Your task to perform on an android device: What's on my calendar tomorrow? Image 0: 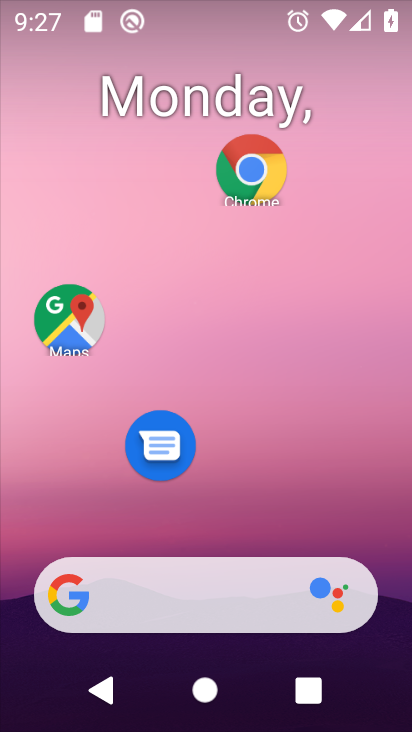
Step 0: press home button
Your task to perform on an android device: What's on my calendar tomorrow? Image 1: 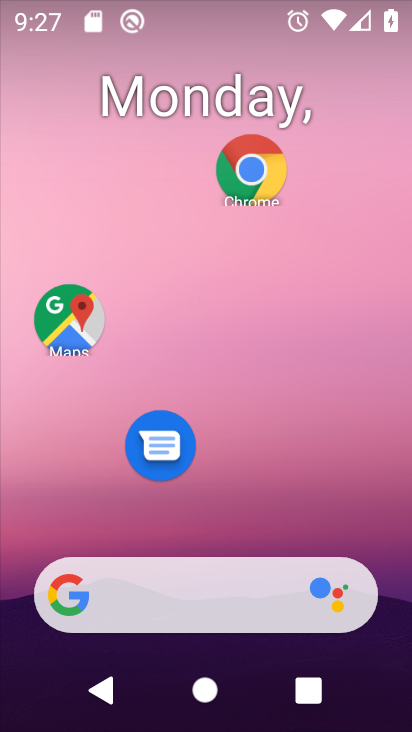
Step 1: drag from (211, 533) to (226, 70)
Your task to perform on an android device: What's on my calendar tomorrow? Image 2: 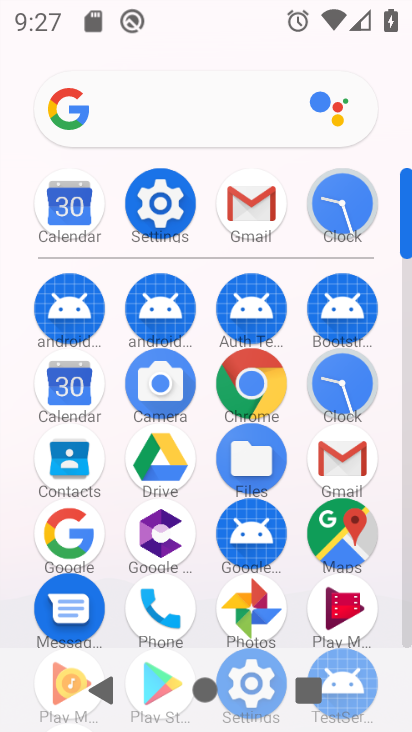
Step 2: click (65, 384)
Your task to perform on an android device: What's on my calendar tomorrow? Image 3: 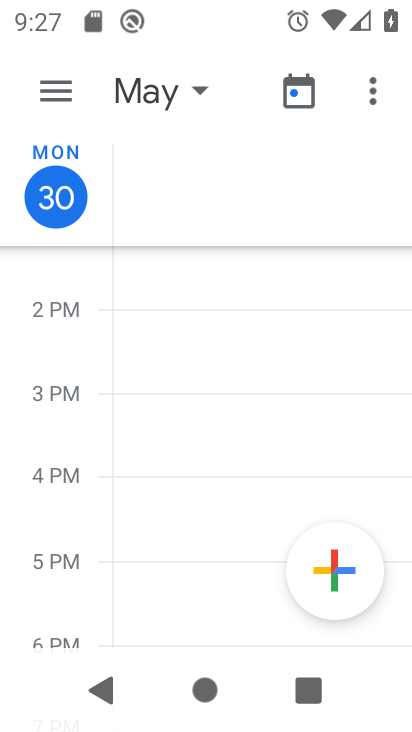
Step 3: click (78, 223)
Your task to perform on an android device: What's on my calendar tomorrow? Image 4: 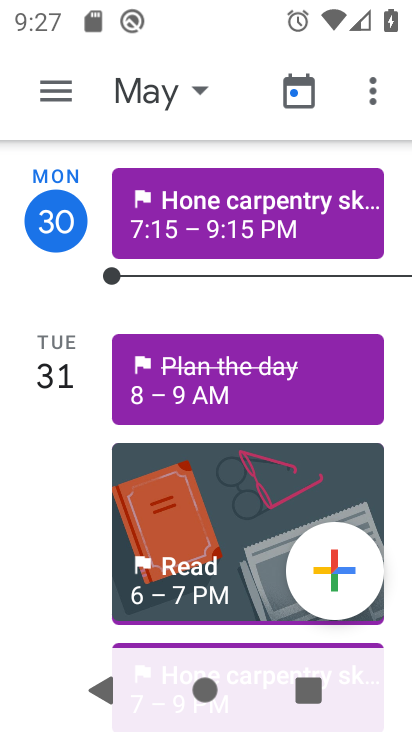
Step 4: click (81, 406)
Your task to perform on an android device: What's on my calendar tomorrow? Image 5: 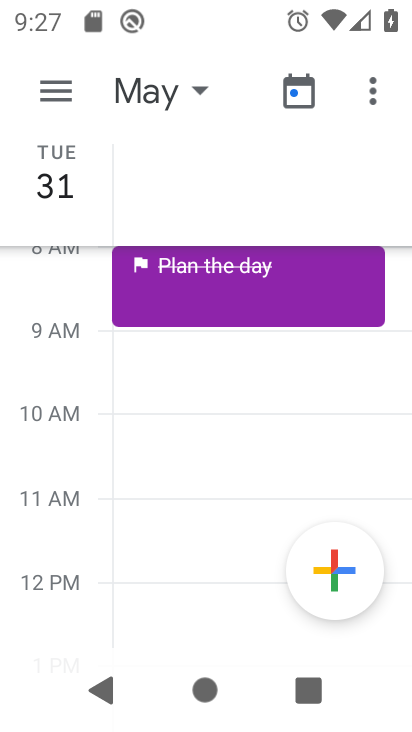
Step 5: task complete